Your task to perform on an android device: Is it going to rain today? Image 0: 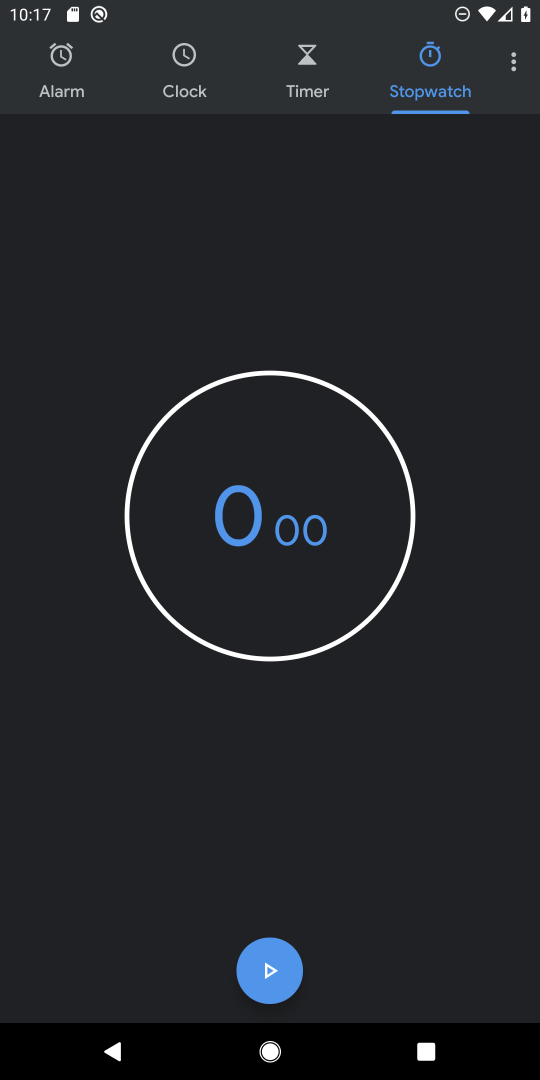
Step 0: press home button
Your task to perform on an android device: Is it going to rain today? Image 1: 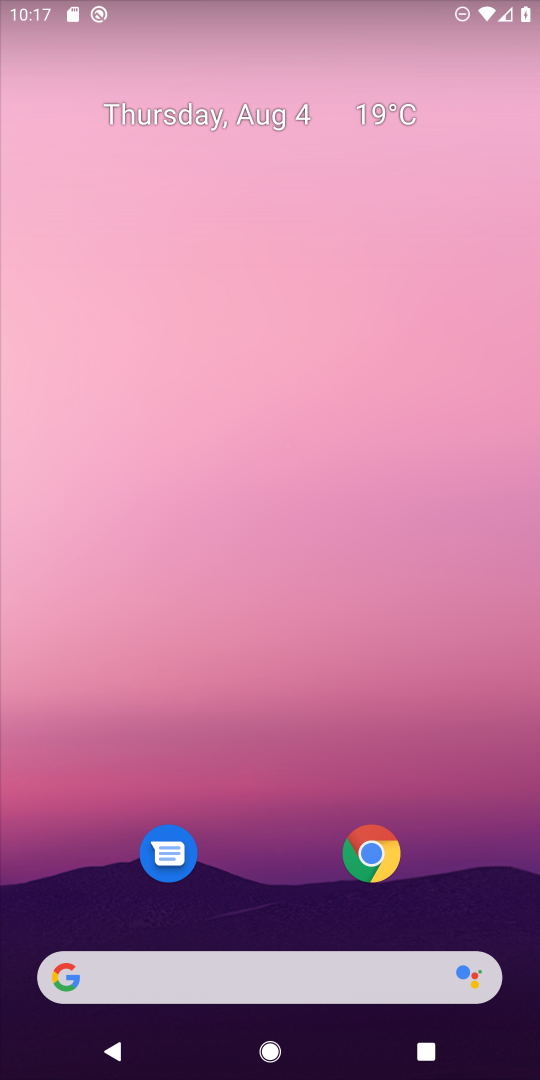
Step 1: drag from (258, 855) to (388, 20)
Your task to perform on an android device: Is it going to rain today? Image 2: 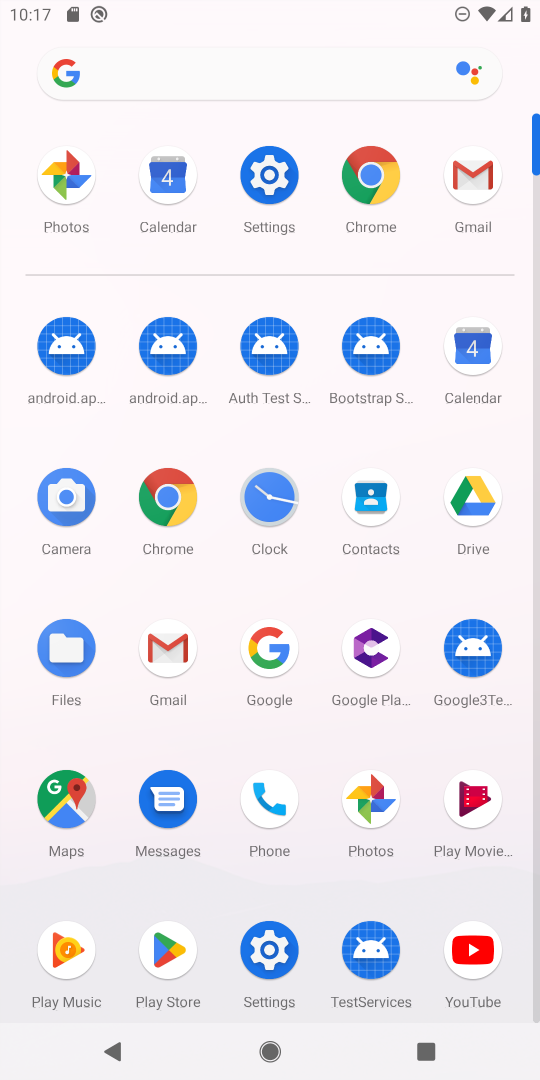
Step 2: click (279, 71)
Your task to perform on an android device: Is it going to rain today? Image 3: 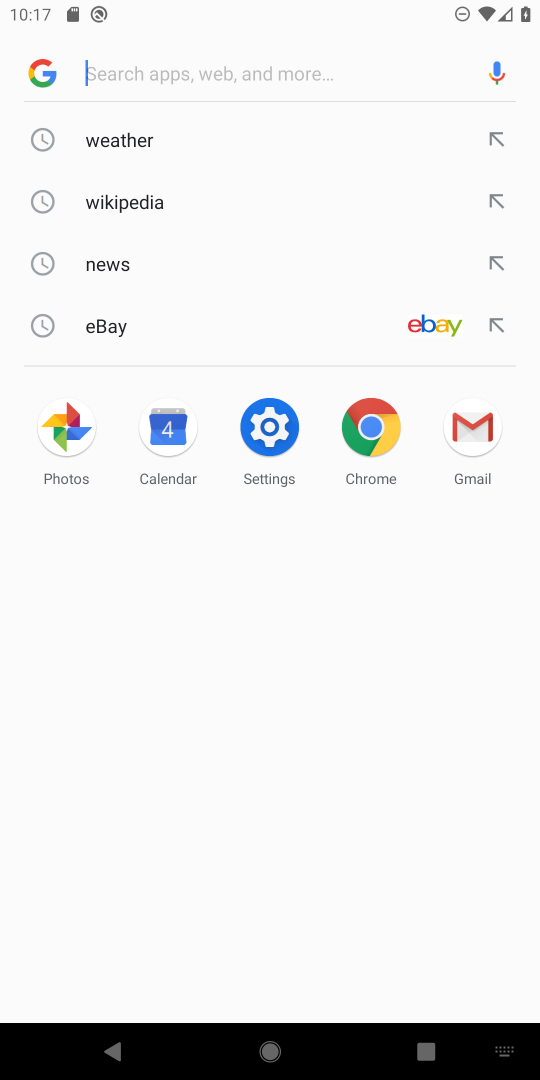
Step 3: type "weather"
Your task to perform on an android device: Is it going to rain today? Image 4: 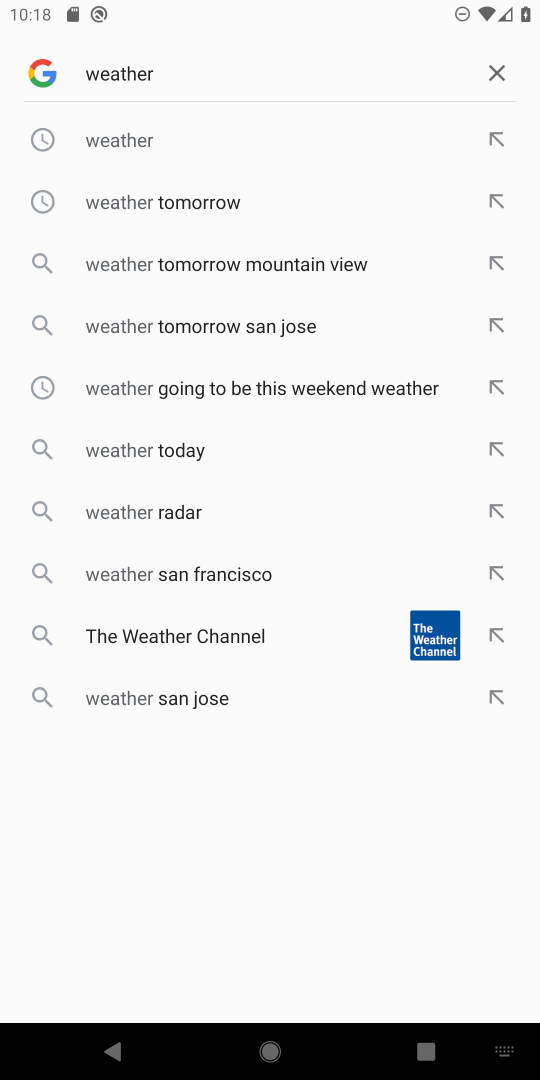
Step 4: click (161, 143)
Your task to perform on an android device: Is it going to rain today? Image 5: 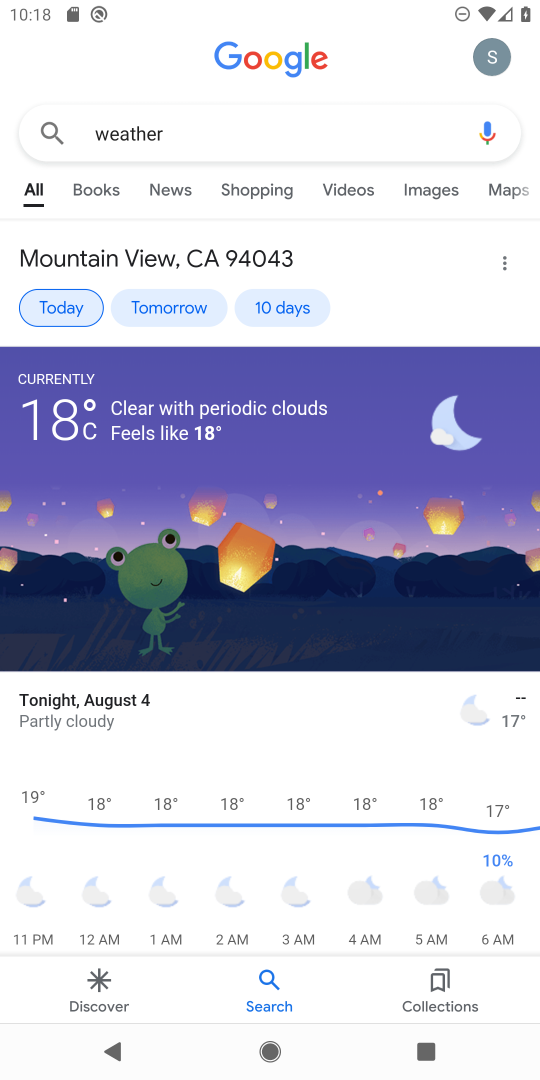
Step 5: task complete